Your task to perform on an android device: turn on the 12-hour format for clock Image 0: 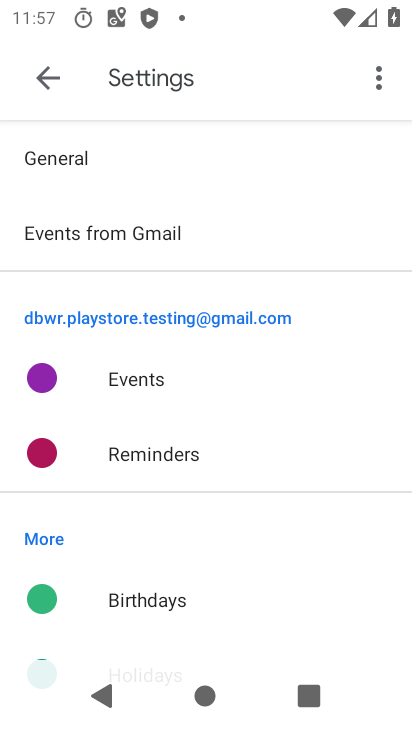
Step 0: press home button
Your task to perform on an android device: turn on the 12-hour format for clock Image 1: 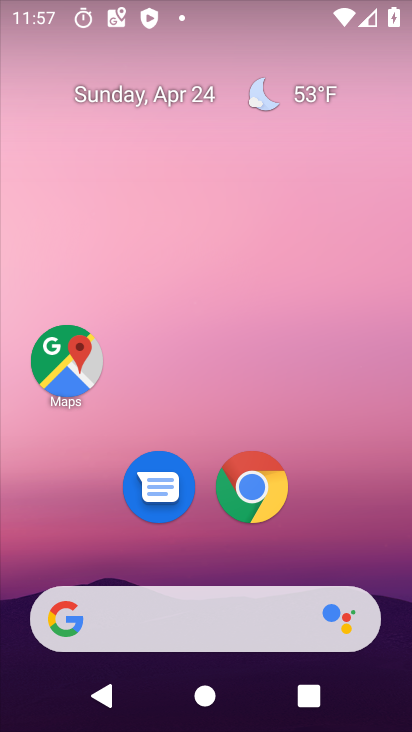
Step 1: drag from (244, 114) to (289, 24)
Your task to perform on an android device: turn on the 12-hour format for clock Image 2: 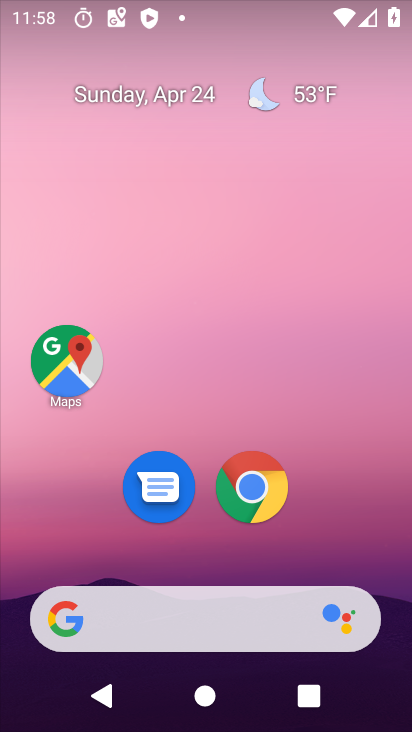
Step 2: drag from (206, 561) to (253, 245)
Your task to perform on an android device: turn on the 12-hour format for clock Image 3: 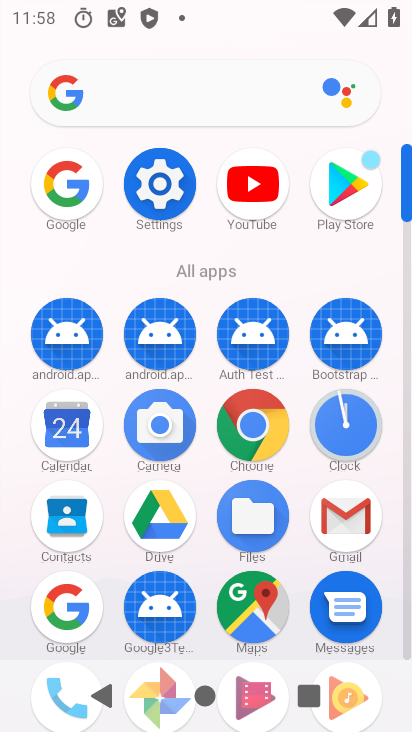
Step 3: click (349, 402)
Your task to perform on an android device: turn on the 12-hour format for clock Image 4: 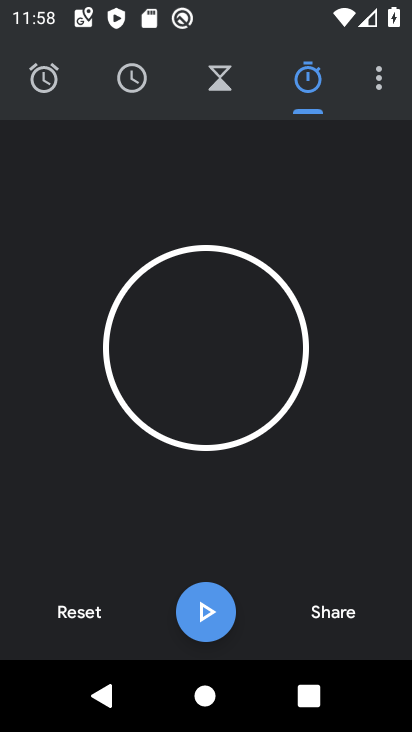
Step 4: click (378, 69)
Your task to perform on an android device: turn on the 12-hour format for clock Image 5: 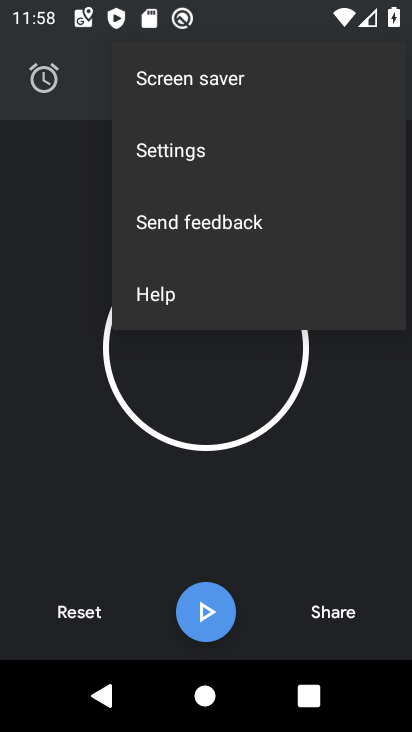
Step 5: click (232, 150)
Your task to perform on an android device: turn on the 12-hour format for clock Image 6: 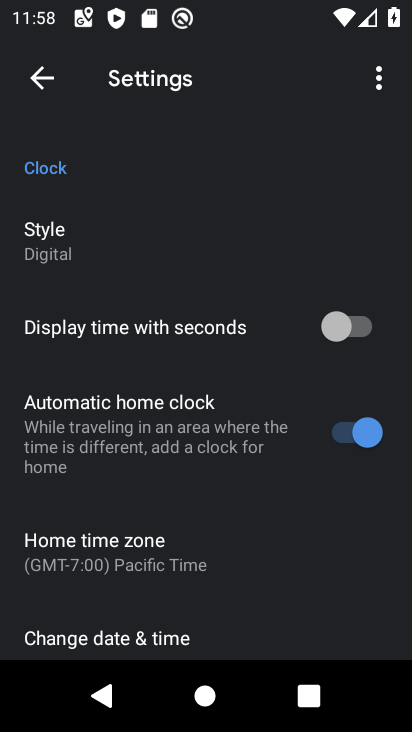
Step 6: drag from (157, 466) to (165, 151)
Your task to perform on an android device: turn on the 12-hour format for clock Image 7: 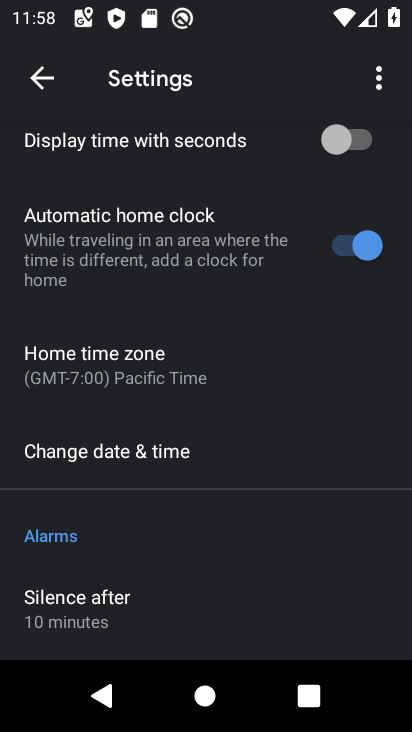
Step 7: click (105, 452)
Your task to perform on an android device: turn on the 12-hour format for clock Image 8: 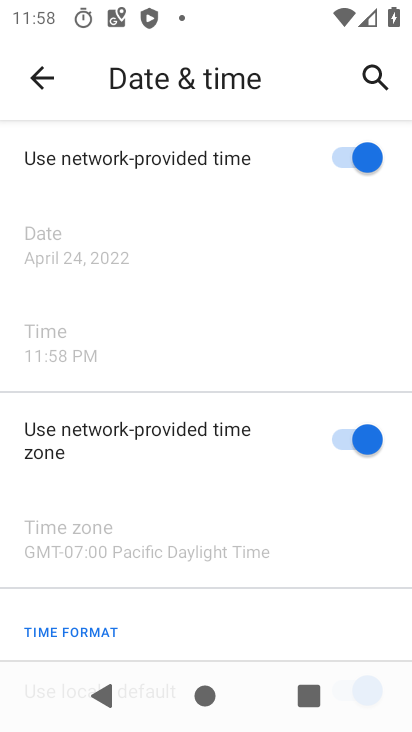
Step 8: task complete